Your task to perform on an android device: Go to settings Image 0: 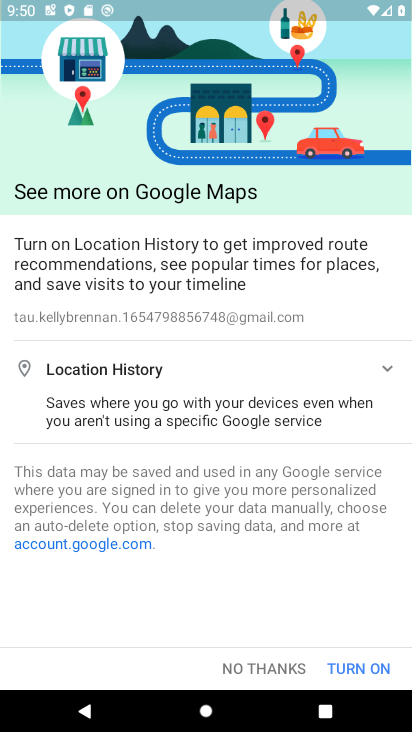
Step 0: press home button
Your task to perform on an android device: Go to settings Image 1: 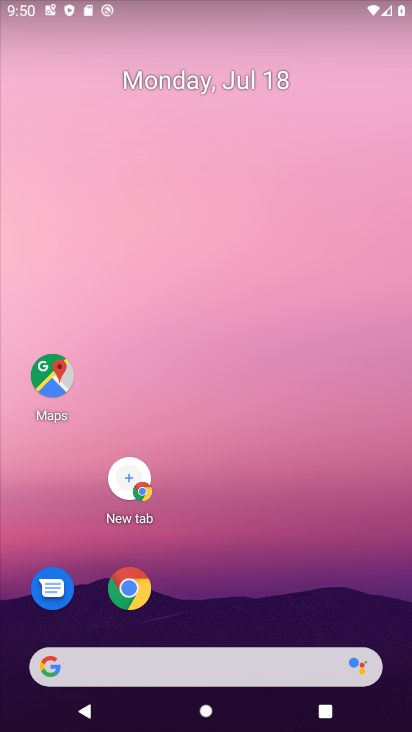
Step 1: drag from (394, 553) to (363, 94)
Your task to perform on an android device: Go to settings Image 2: 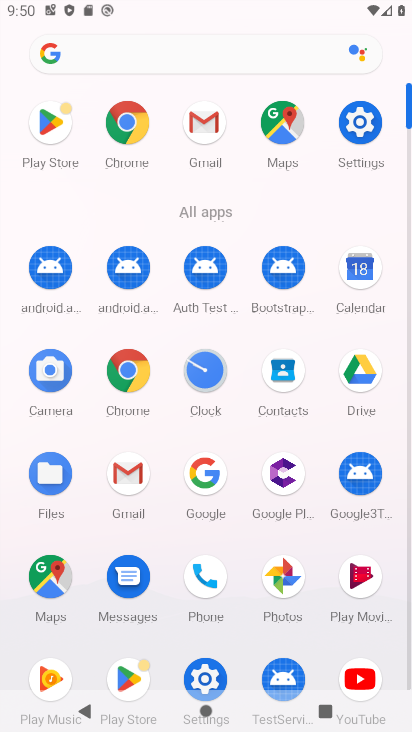
Step 2: click (371, 125)
Your task to perform on an android device: Go to settings Image 3: 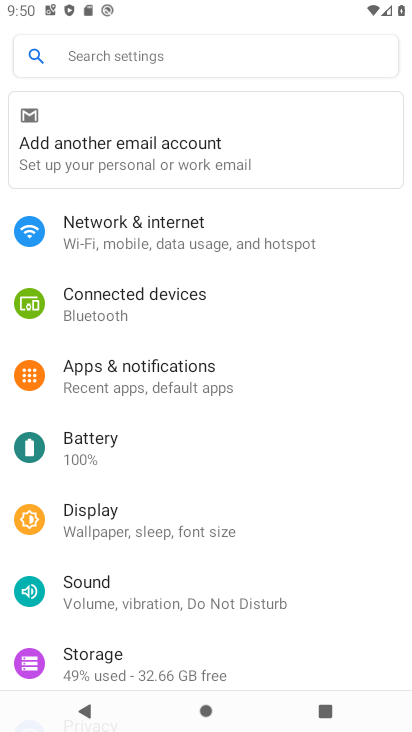
Step 3: task complete